Your task to perform on an android device: turn on bluetooth scan Image 0: 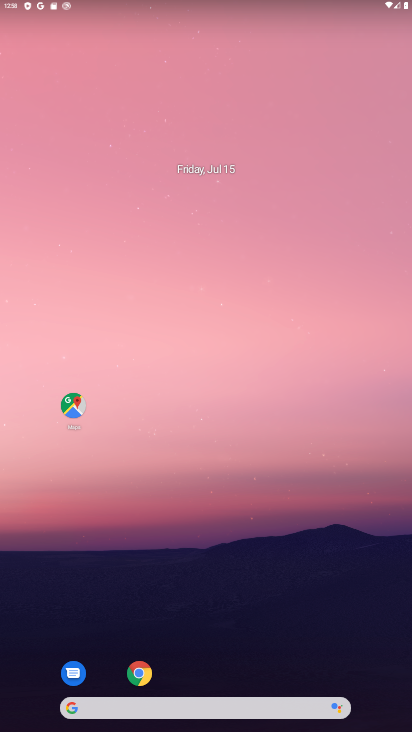
Step 0: drag from (6, 259) to (30, 193)
Your task to perform on an android device: turn on bluetooth scan Image 1: 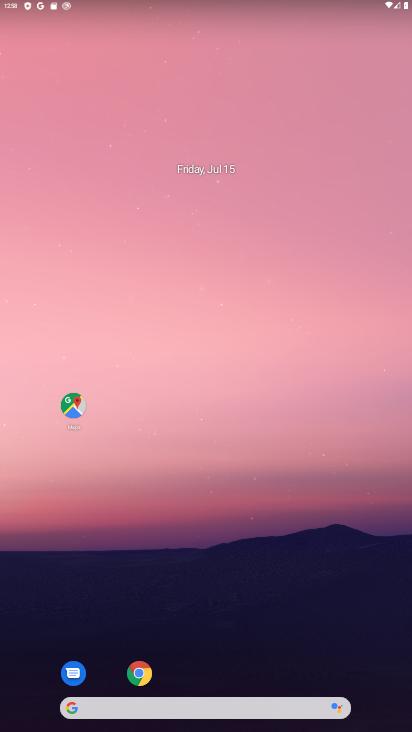
Step 1: drag from (299, 649) to (349, 167)
Your task to perform on an android device: turn on bluetooth scan Image 2: 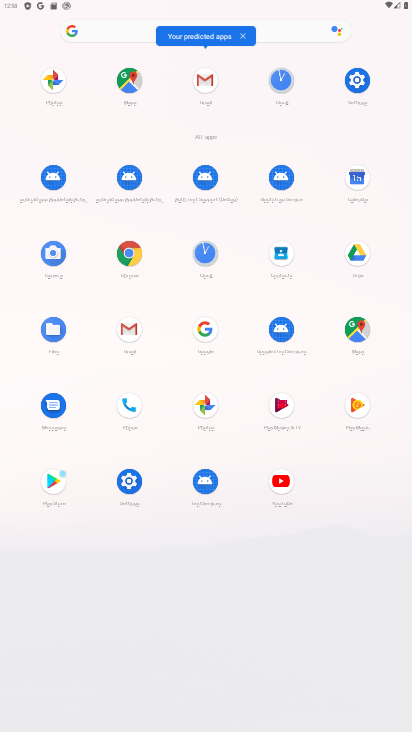
Step 2: click (114, 477)
Your task to perform on an android device: turn on bluetooth scan Image 3: 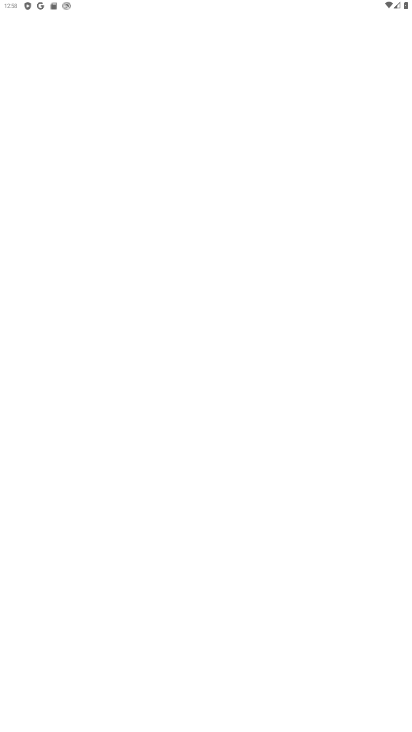
Step 3: click (125, 470)
Your task to perform on an android device: turn on bluetooth scan Image 4: 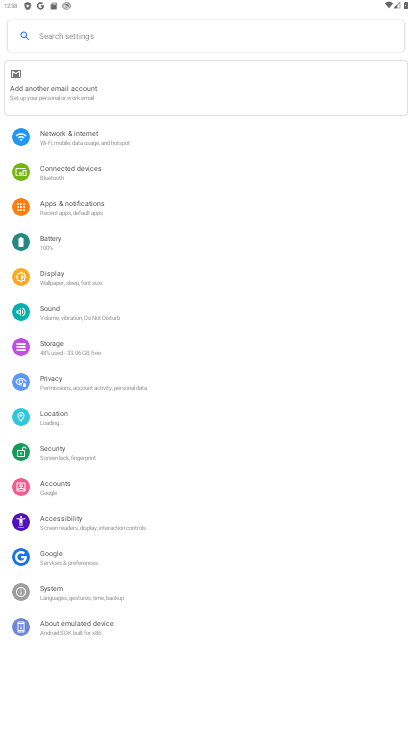
Step 4: click (159, 175)
Your task to perform on an android device: turn on bluetooth scan Image 5: 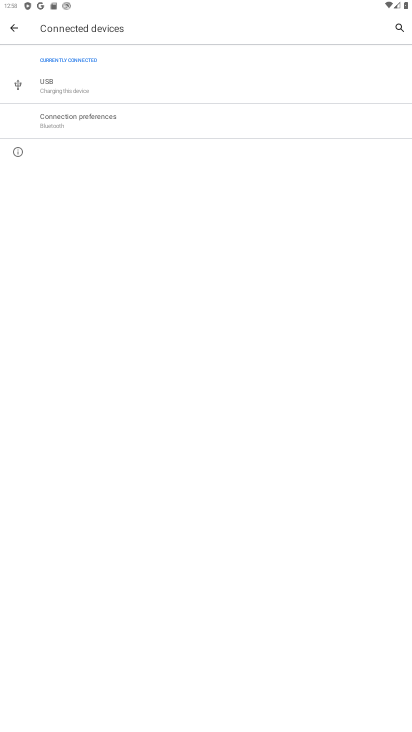
Step 5: click (152, 124)
Your task to perform on an android device: turn on bluetooth scan Image 6: 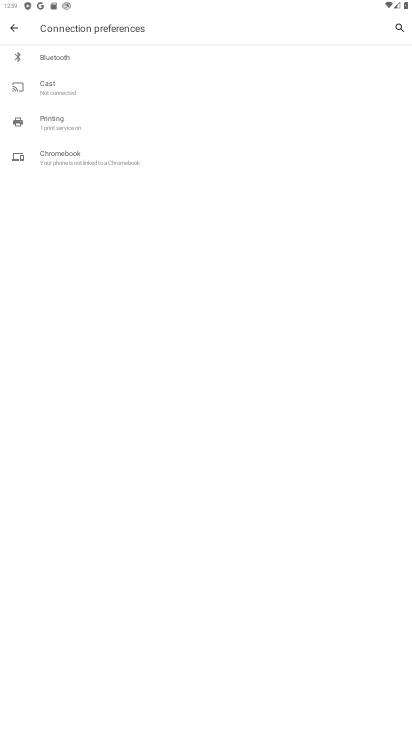
Step 6: click (135, 67)
Your task to perform on an android device: turn on bluetooth scan Image 7: 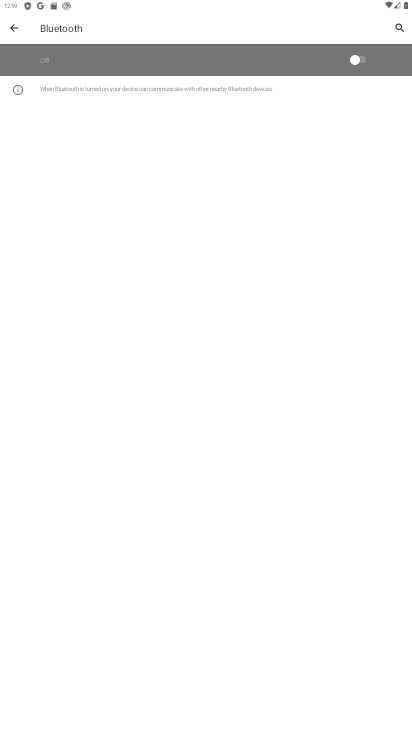
Step 7: click (364, 54)
Your task to perform on an android device: turn on bluetooth scan Image 8: 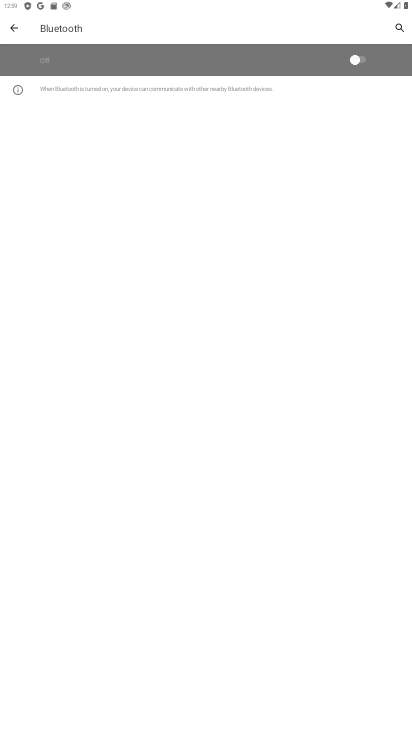
Step 8: click (379, 58)
Your task to perform on an android device: turn on bluetooth scan Image 9: 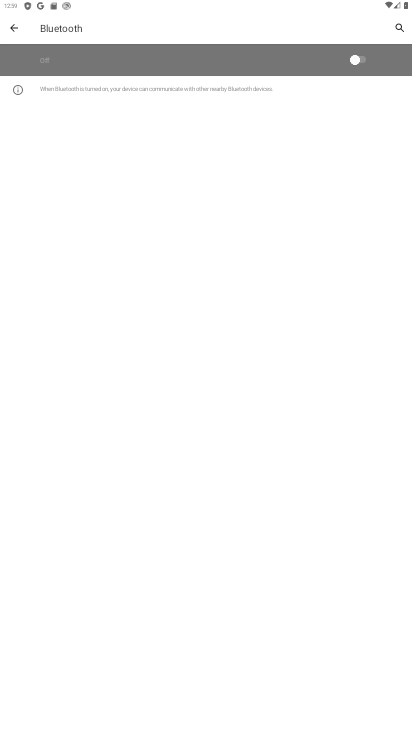
Step 9: task complete